Your task to perform on an android device: Search for seafood restaurants on Google Maps Image 0: 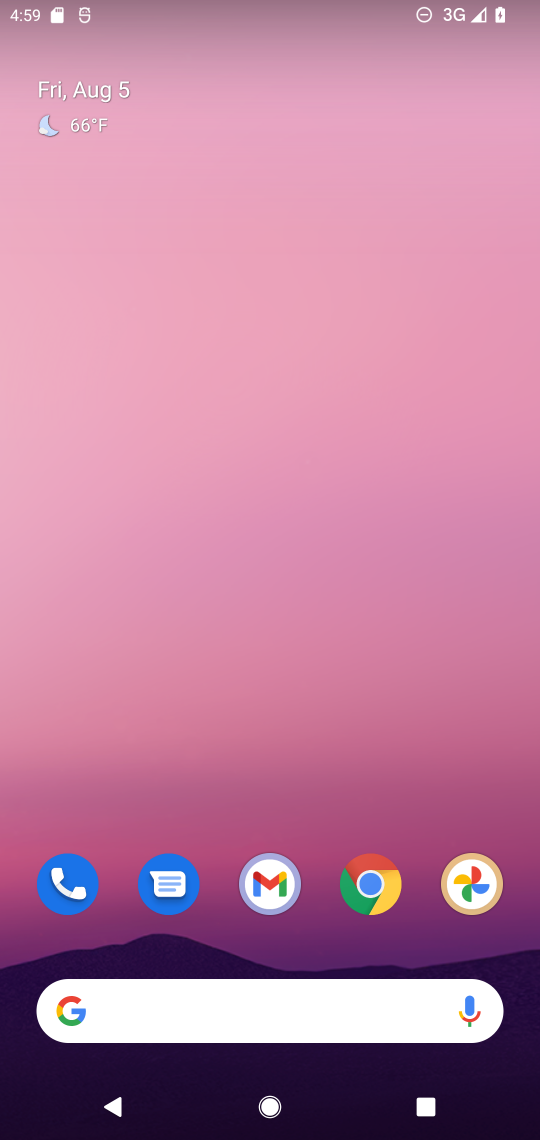
Step 0: drag from (430, 925) to (266, 78)
Your task to perform on an android device: Search for seafood restaurants on Google Maps Image 1: 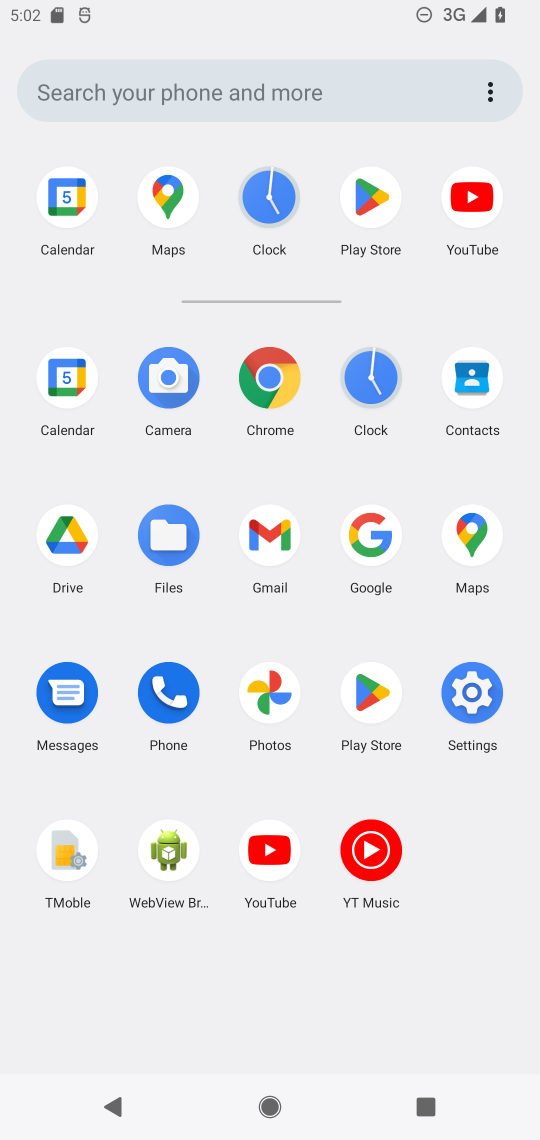
Step 1: click (454, 548)
Your task to perform on an android device: Search for seafood restaurants on Google Maps Image 2: 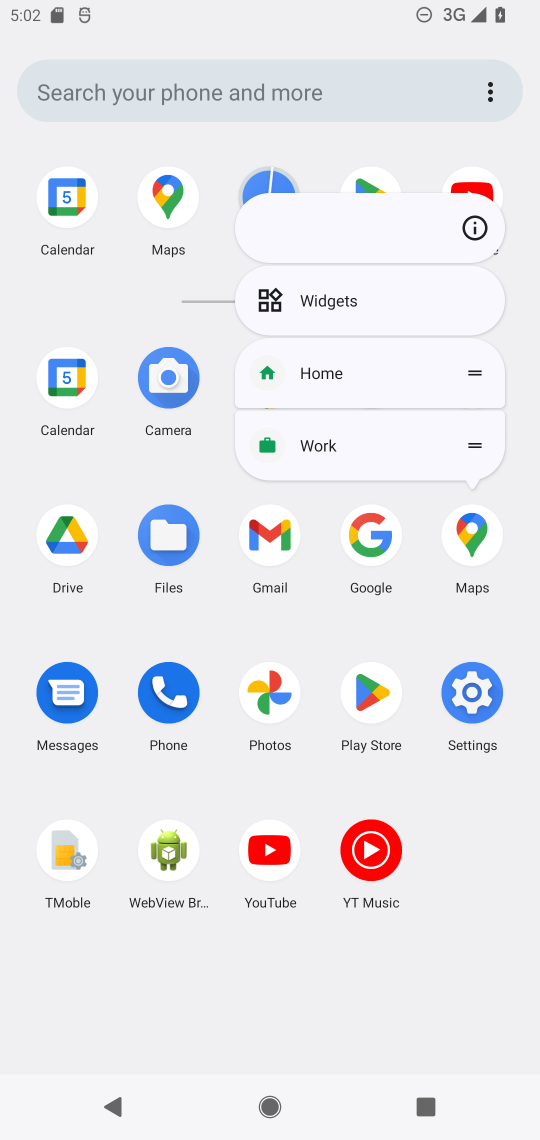
Step 2: click (454, 548)
Your task to perform on an android device: Search for seafood restaurants on Google Maps Image 3: 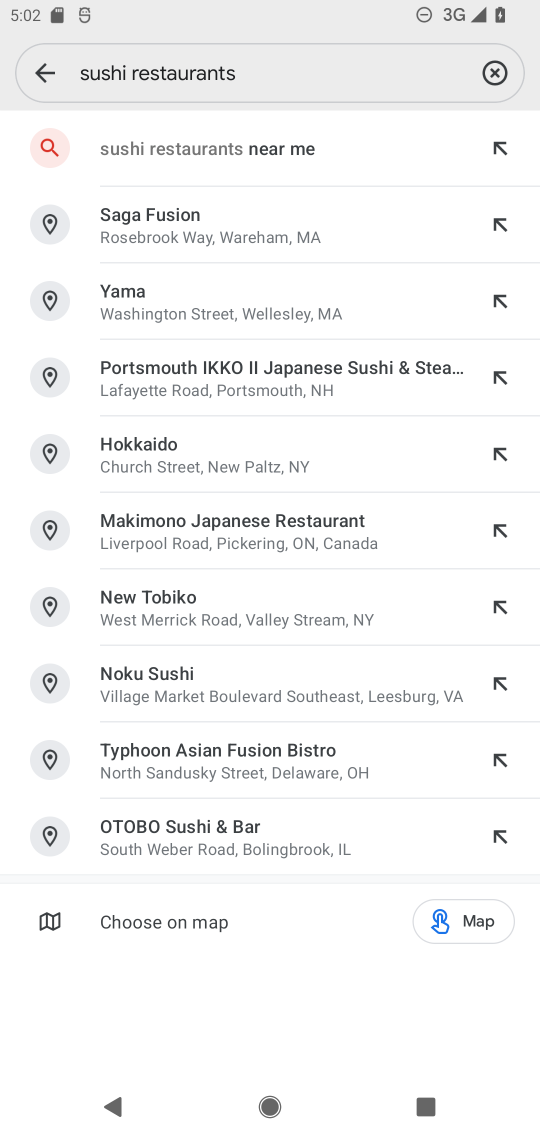
Step 3: press back button
Your task to perform on an android device: Search for seafood restaurants on Google Maps Image 4: 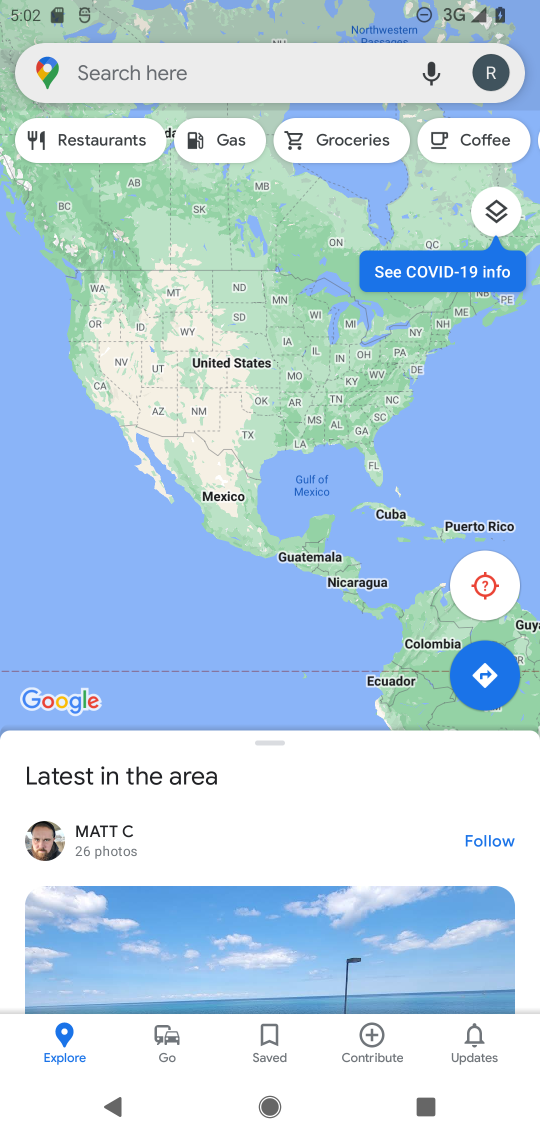
Step 4: click (168, 74)
Your task to perform on an android device: Search for seafood restaurants on Google Maps Image 5: 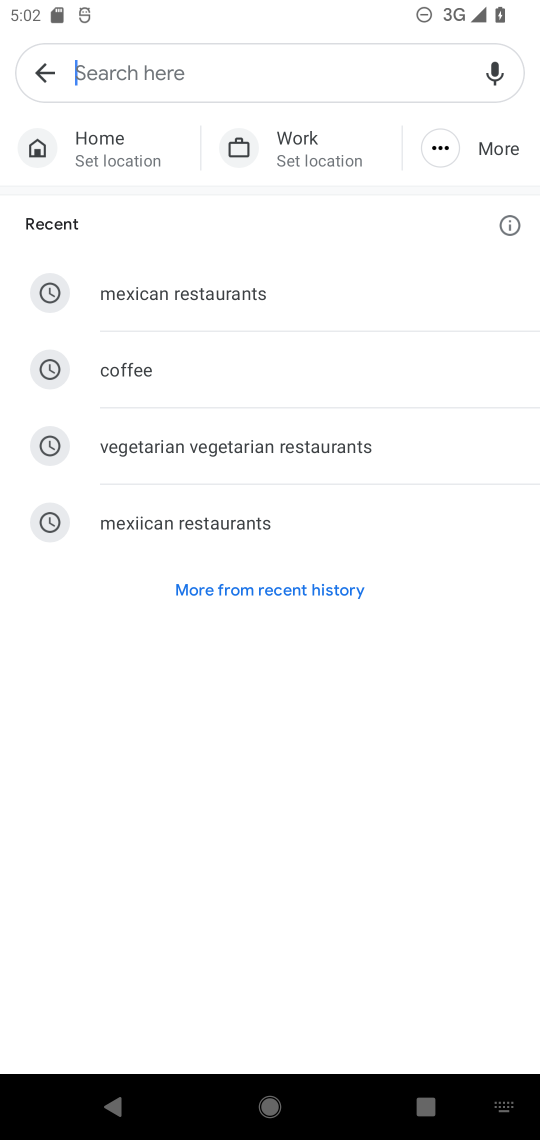
Step 5: type "seafood restaurants"
Your task to perform on an android device: Search for seafood restaurants on Google Maps Image 6: 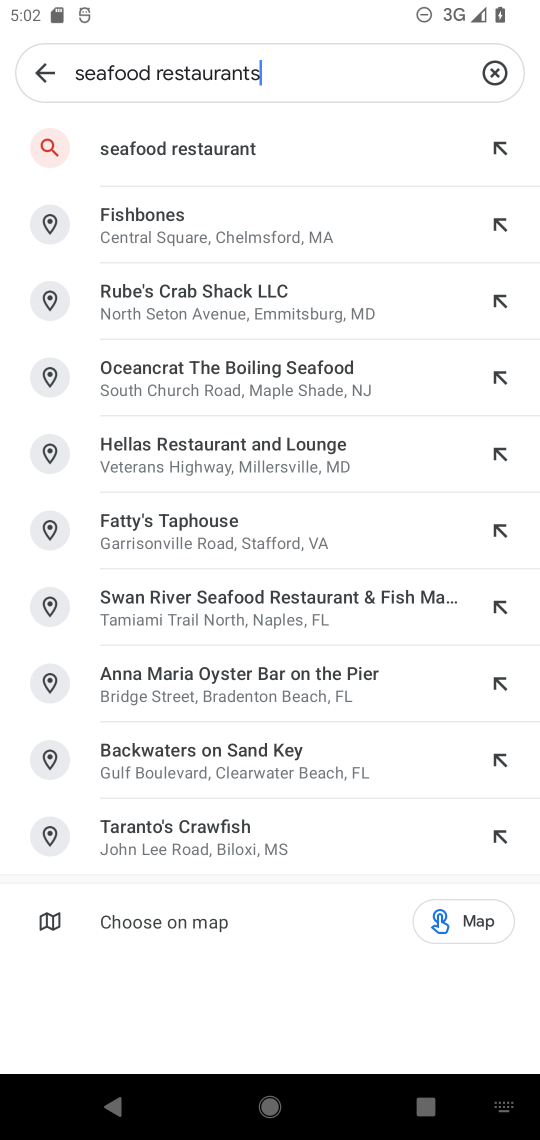
Step 6: click (195, 133)
Your task to perform on an android device: Search for seafood restaurants on Google Maps Image 7: 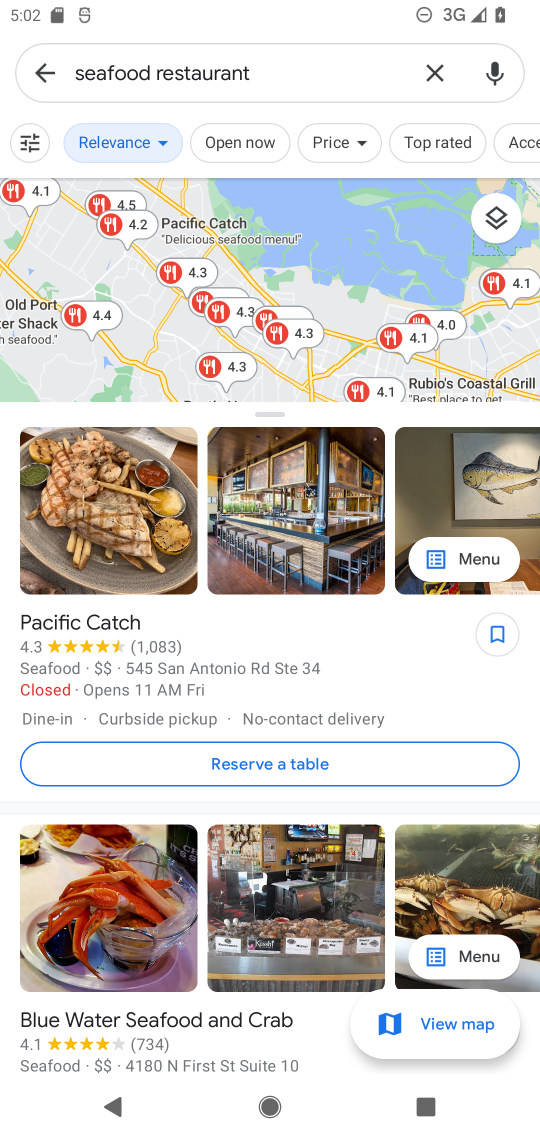
Step 7: task complete